Your task to perform on an android device: Open settings on Google Maps Image 0: 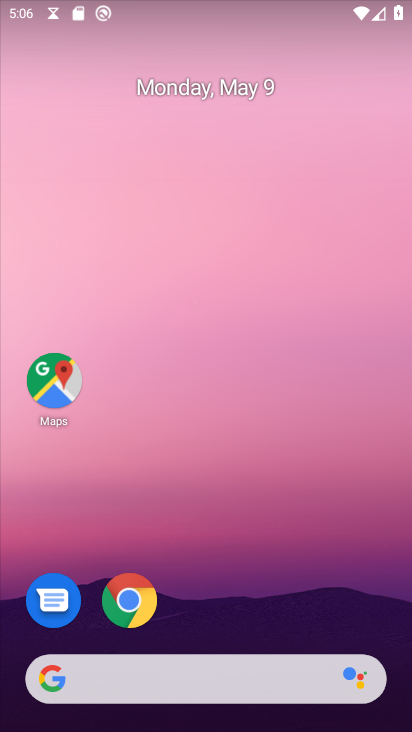
Step 0: drag from (294, 690) to (239, 109)
Your task to perform on an android device: Open settings on Google Maps Image 1: 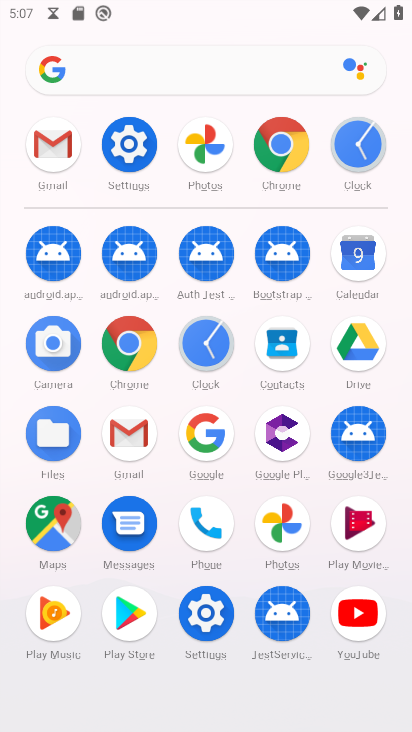
Step 1: click (47, 531)
Your task to perform on an android device: Open settings on Google Maps Image 2: 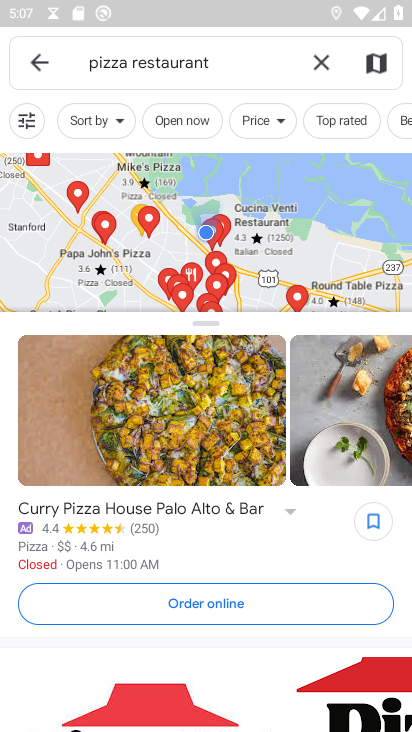
Step 2: press back button
Your task to perform on an android device: Open settings on Google Maps Image 3: 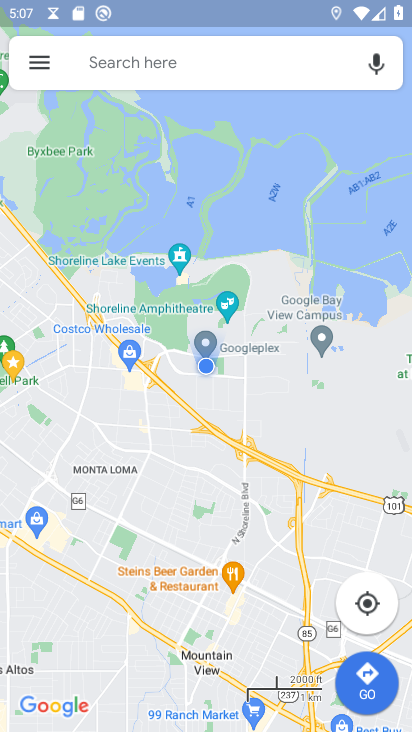
Step 3: click (47, 59)
Your task to perform on an android device: Open settings on Google Maps Image 4: 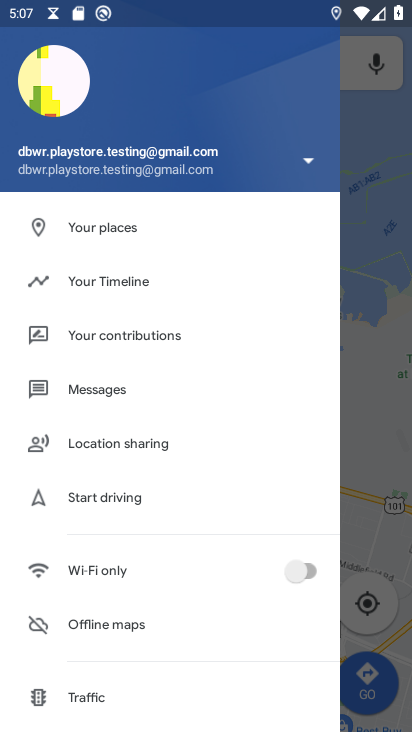
Step 4: click (103, 285)
Your task to perform on an android device: Open settings on Google Maps Image 5: 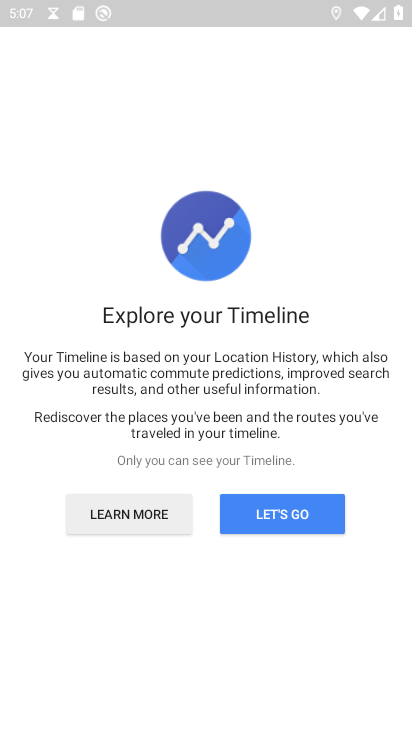
Step 5: click (256, 505)
Your task to perform on an android device: Open settings on Google Maps Image 6: 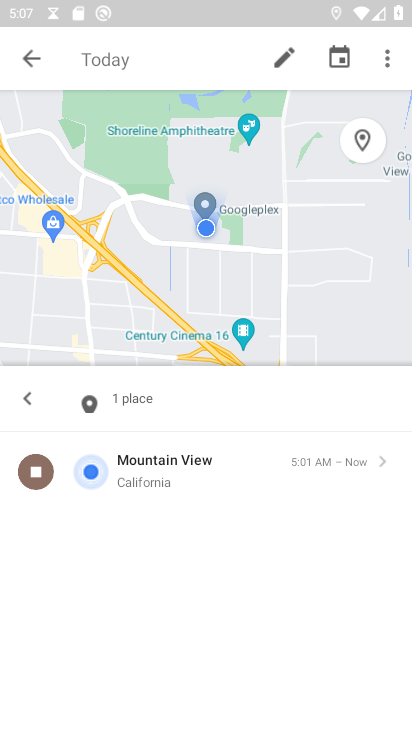
Step 6: click (375, 58)
Your task to perform on an android device: Open settings on Google Maps Image 7: 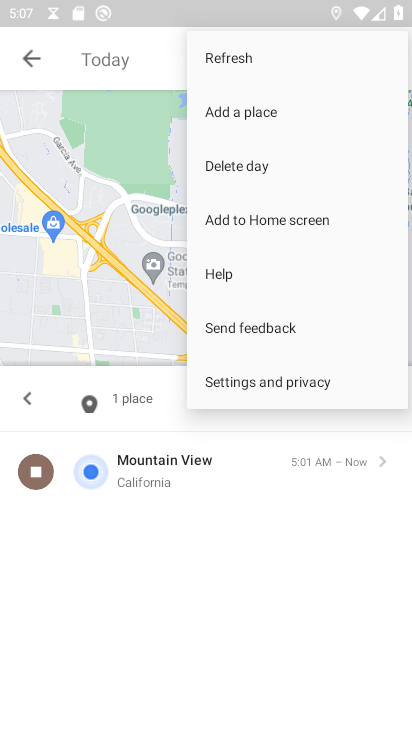
Step 7: click (286, 378)
Your task to perform on an android device: Open settings on Google Maps Image 8: 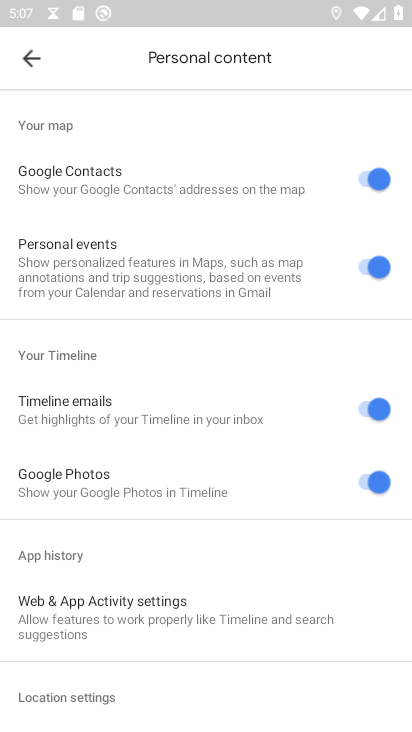
Step 8: task complete